Your task to perform on an android device: Show the shopping cart on amazon. Image 0: 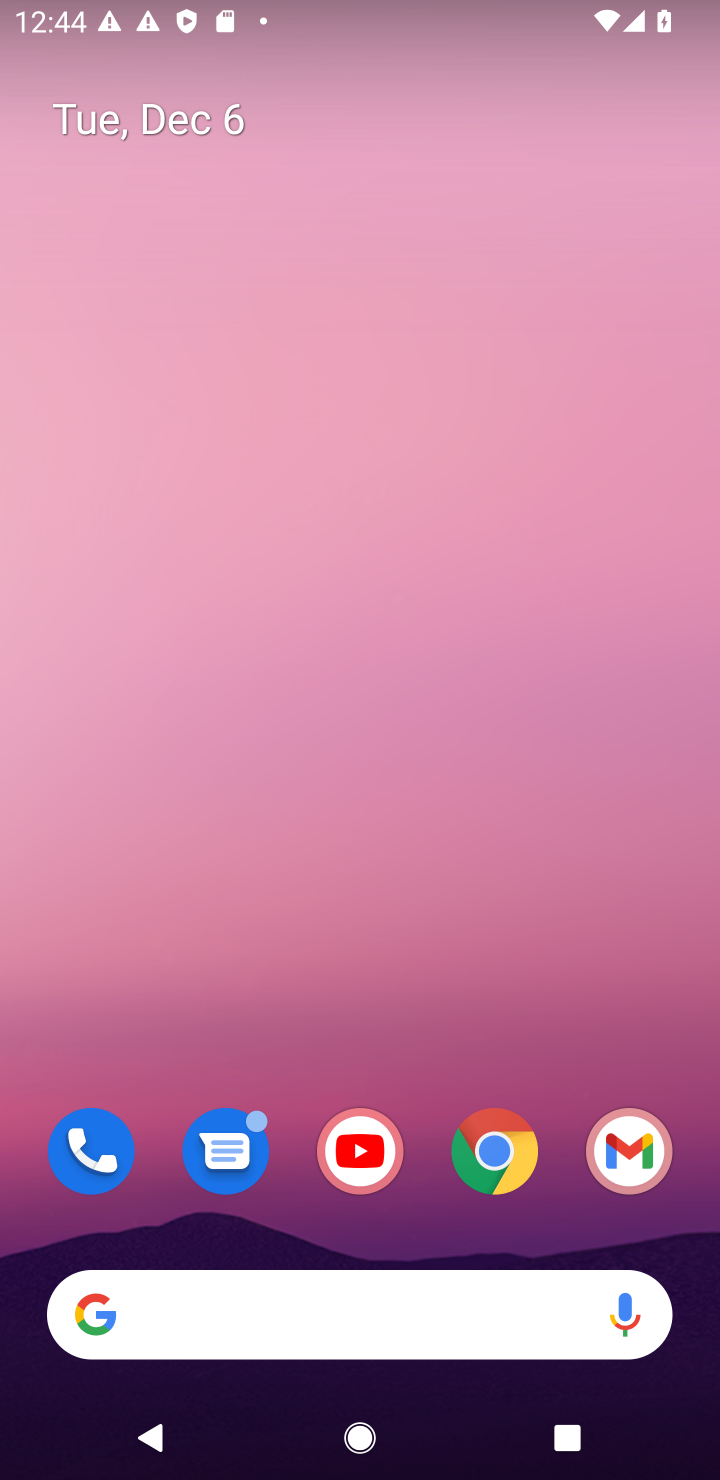
Step 0: click (503, 1151)
Your task to perform on an android device: Show the shopping cart on amazon. Image 1: 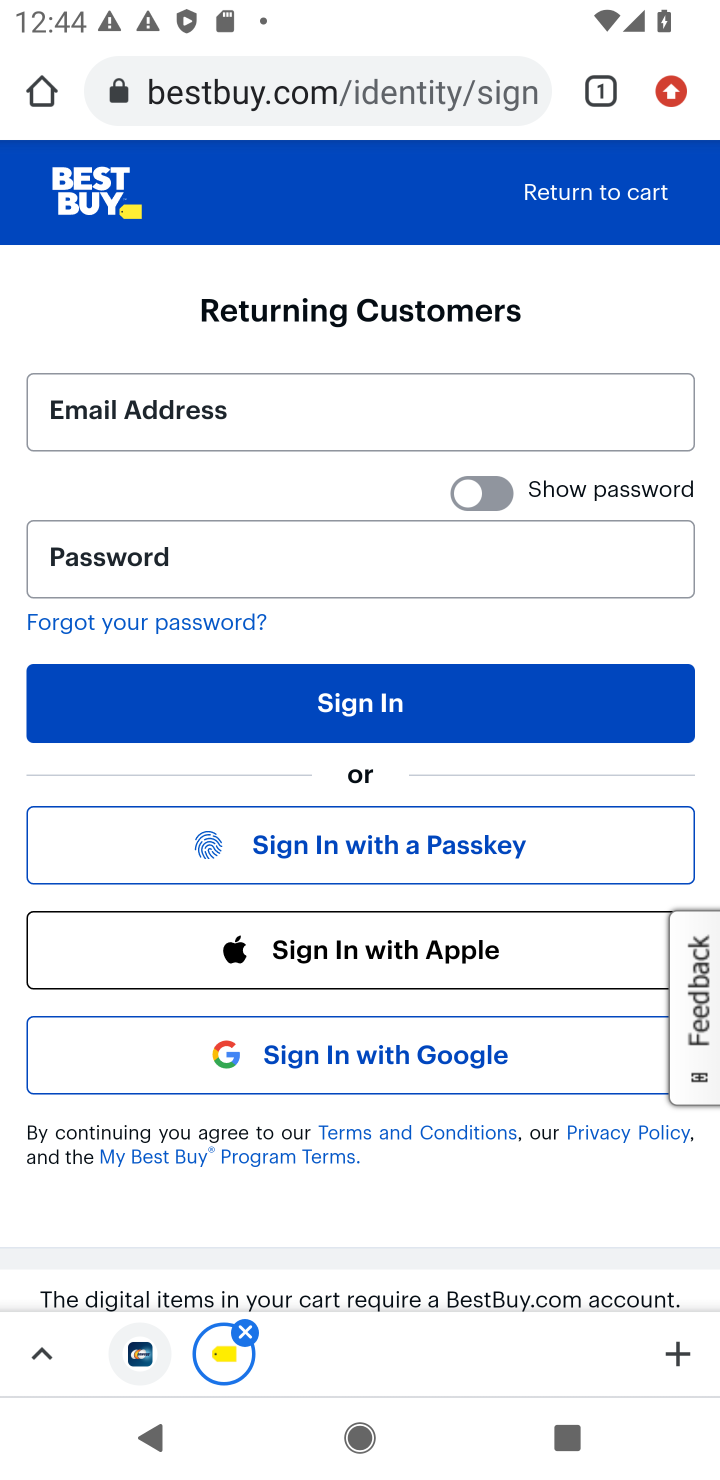
Step 1: click (290, 93)
Your task to perform on an android device: Show the shopping cart on amazon. Image 2: 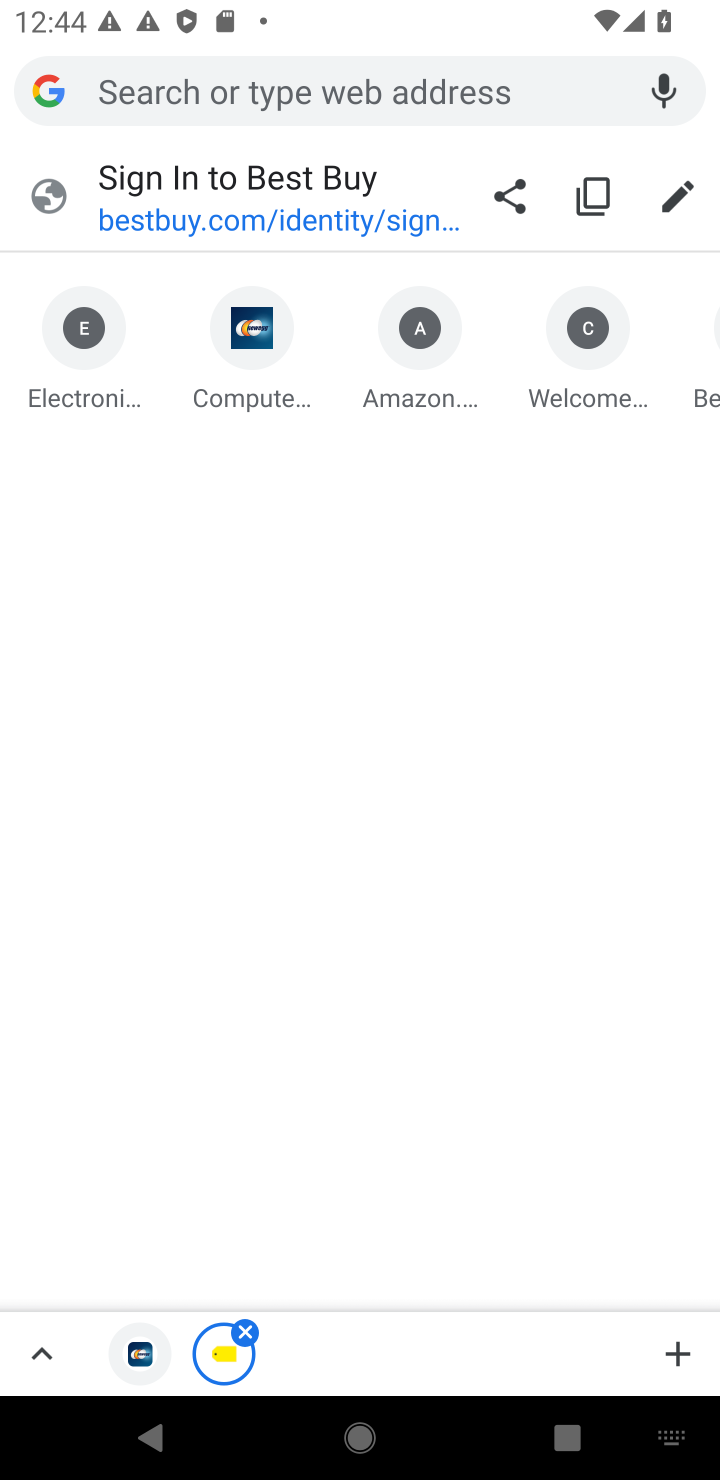
Step 2: click (408, 412)
Your task to perform on an android device: Show the shopping cart on amazon. Image 3: 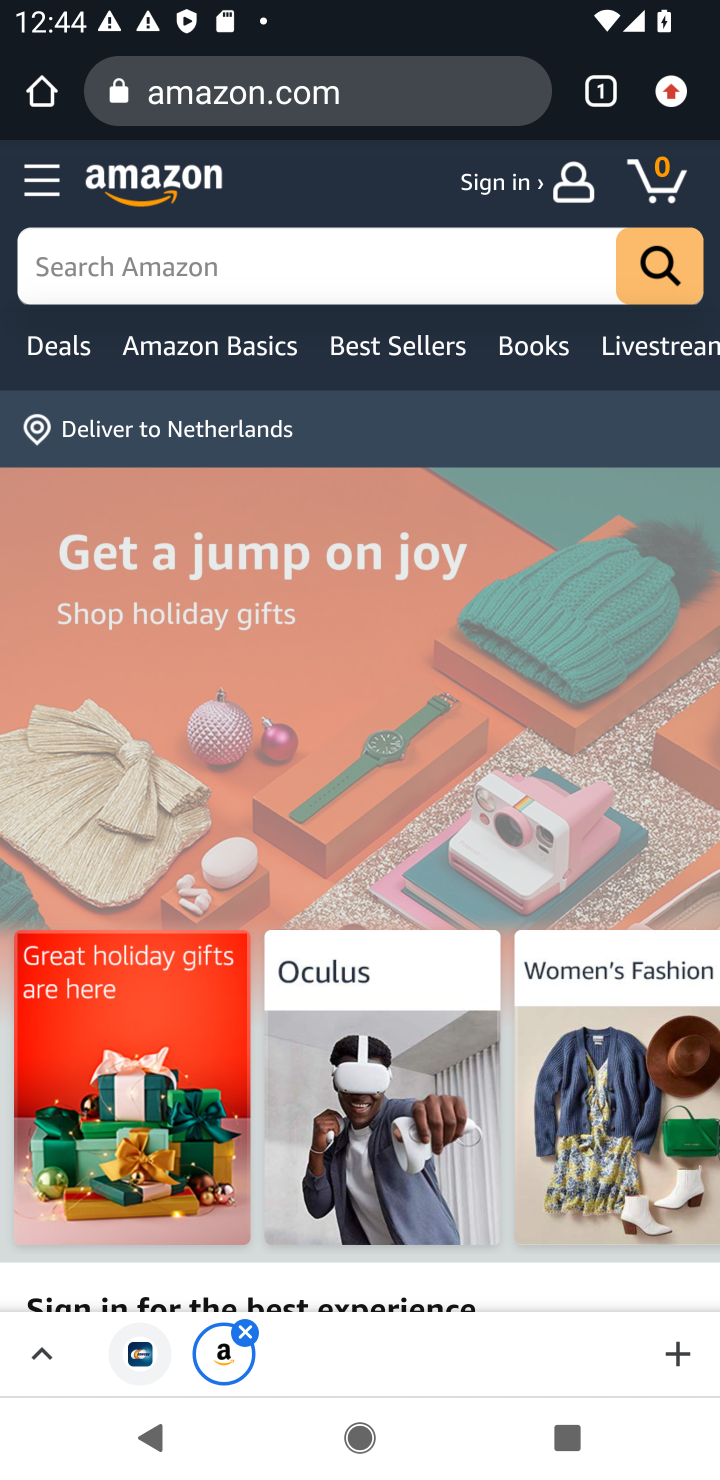
Step 3: click (657, 191)
Your task to perform on an android device: Show the shopping cart on amazon. Image 4: 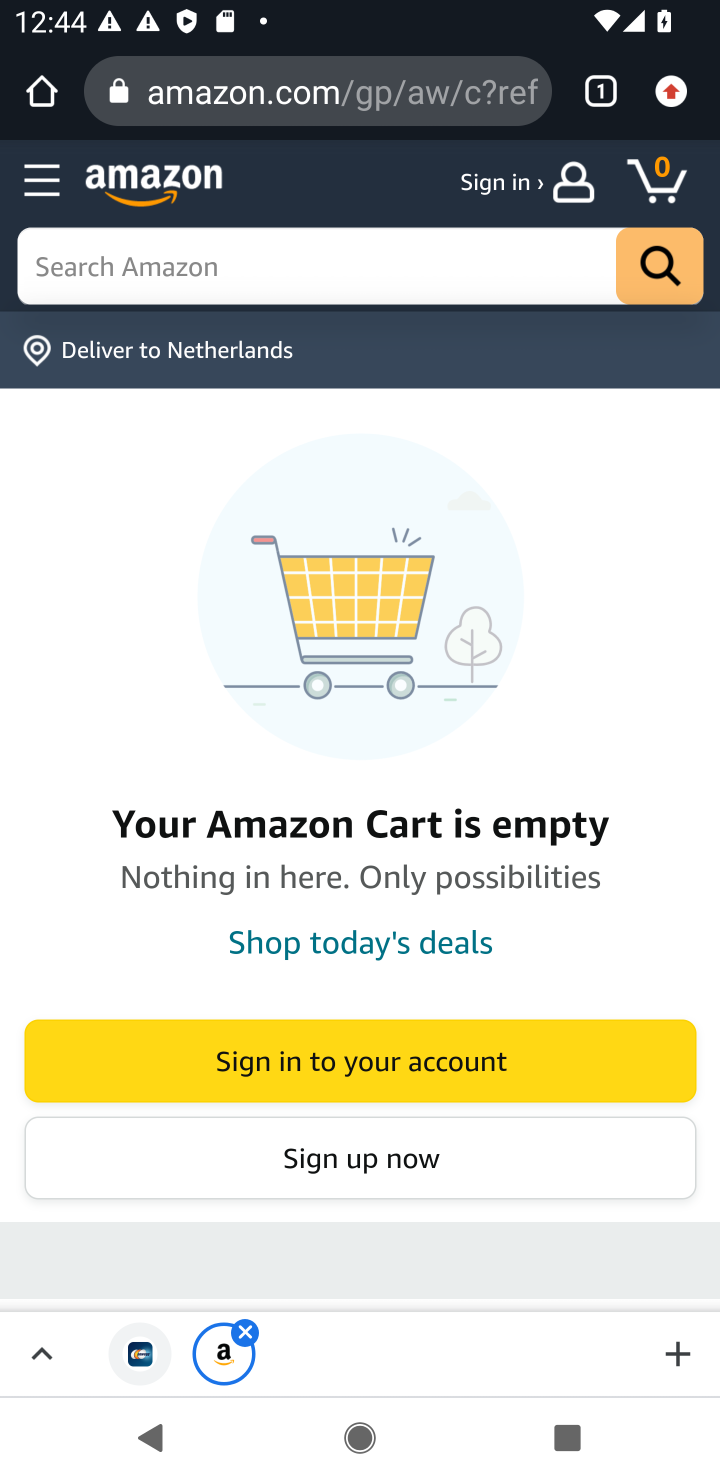
Step 4: task complete